Your task to perform on an android device: find snoozed emails in the gmail app Image 0: 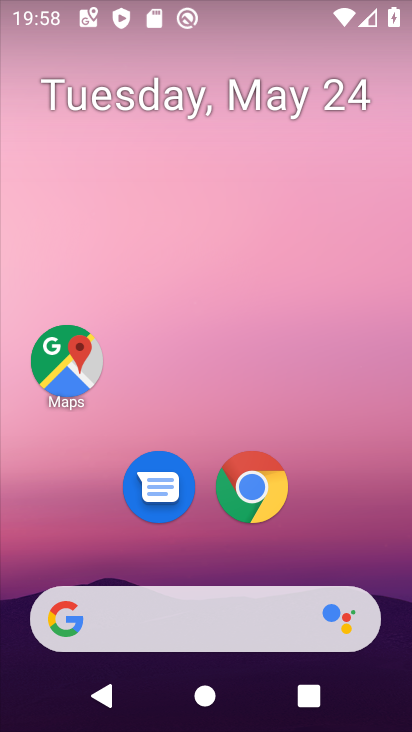
Step 0: drag from (72, 445) to (195, 137)
Your task to perform on an android device: find snoozed emails in the gmail app Image 1: 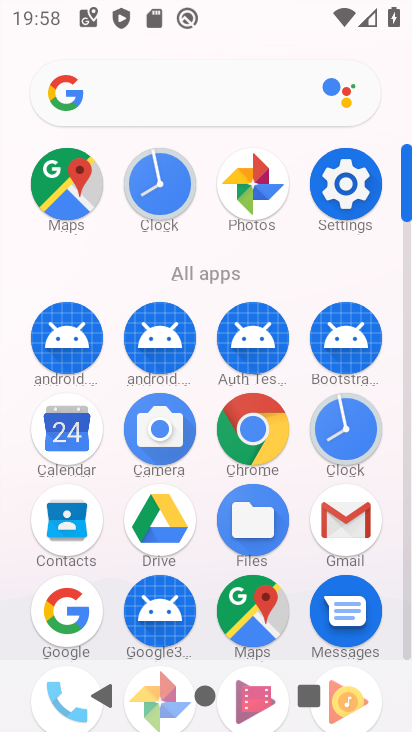
Step 1: click (351, 515)
Your task to perform on an android device: find snoozed emails in the gmail app Image 2: 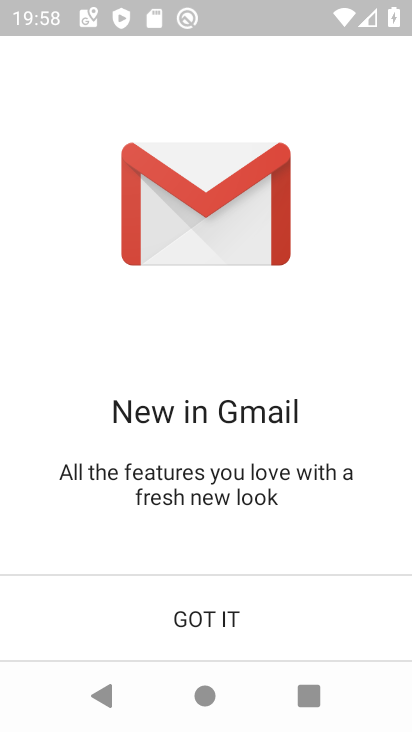
Step 2: click (193, 597)
Your task to perform on an android device: find snoozed emails in the gmail app Image 3: 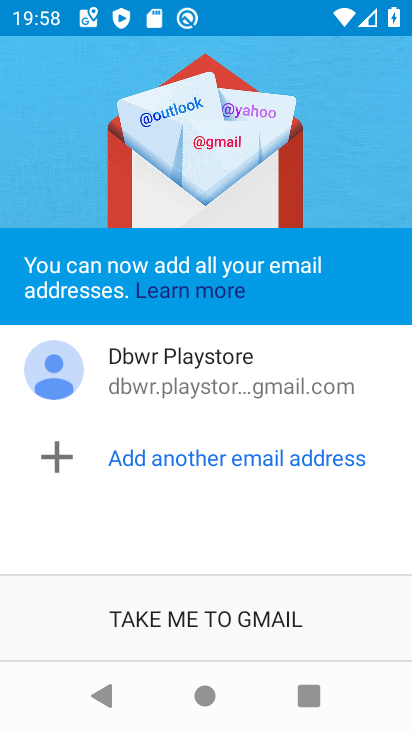
Step 3: click (223, 617)
Your task to perform on an android device: find snoozed emails in the gmail app Image 4: 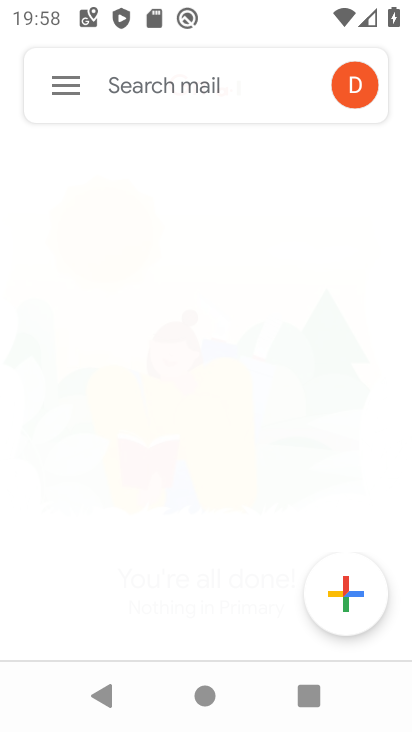
Step 4: click (62, 86)
Your task to perform on an android device: find snoozed emails in the gmail app Image 5: 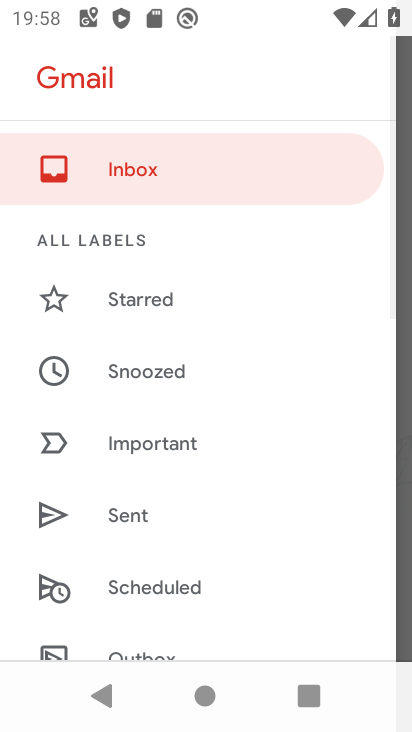
Step 5: click (156, 366)
Your task to perform on an android device: find snoozed emails in the gmail app Image 6: 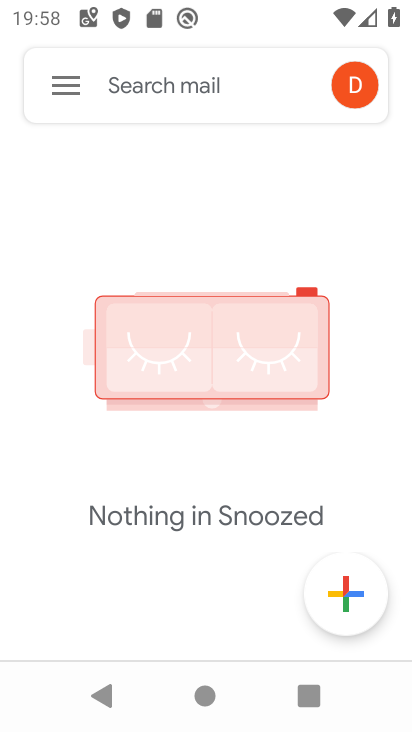
Step 6: task complete